Your task to perform on an android device: show emergency info Image 0: 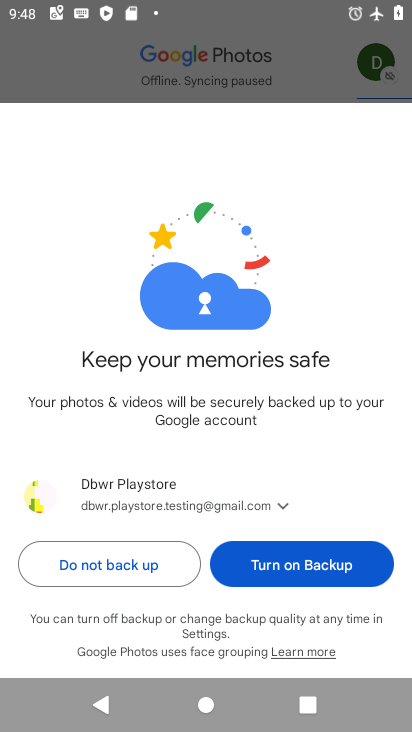
Step 0: press home button
Your task to perform on an android device: show emergency info Image 1: 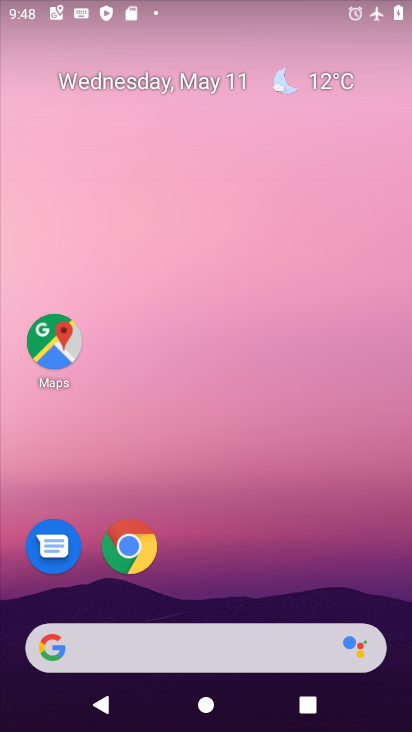
Step 1: drag from (390, 610) to (328, 233)
Your task to perform on an android device: show emergency info Image 2: 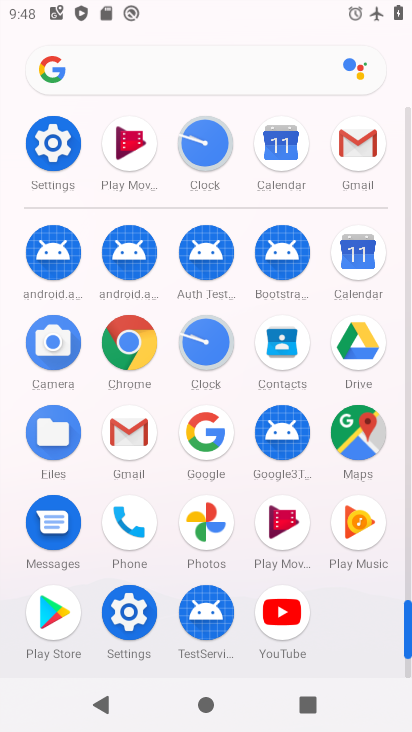
Step 2: click (128, 612)
Your task to perform on an android device: show emergency info Image 3: 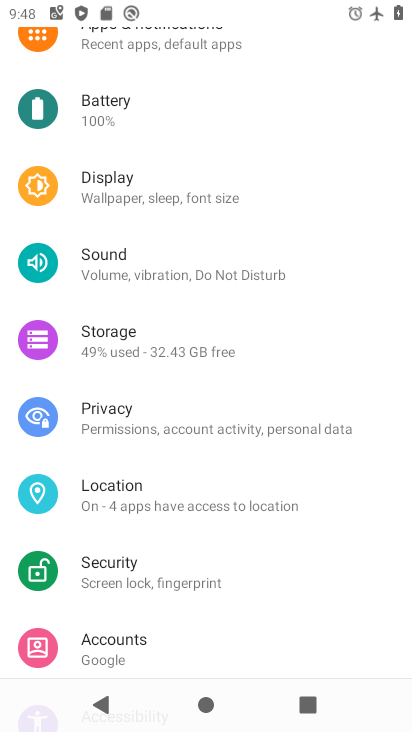
Step 3: drag from (291, 619) to (327, 162)
Your task to perform on an android device: show emergency info Image 4: 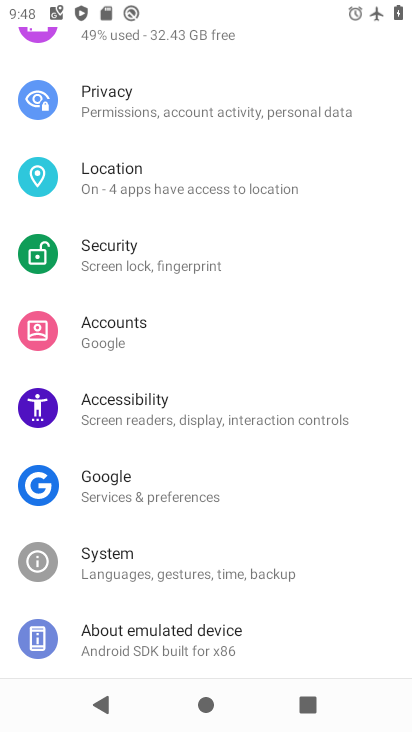
Step 4: click (121, 628)
Your task to perform on an android device: show emergency info Image 5: 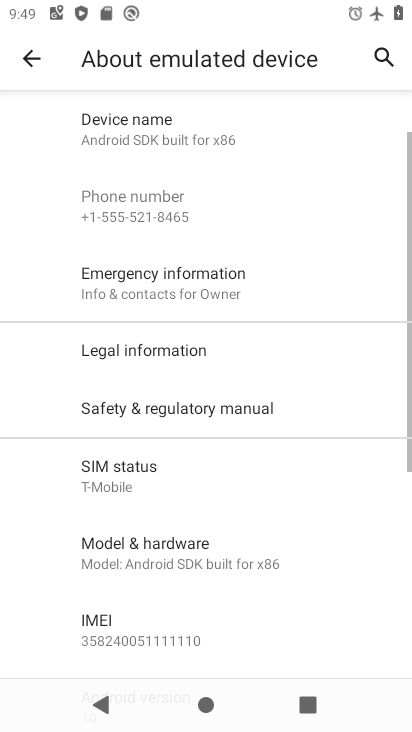
Step 5: click (147, 267)
Your task to perform on an android device: show emergency info Image 6: 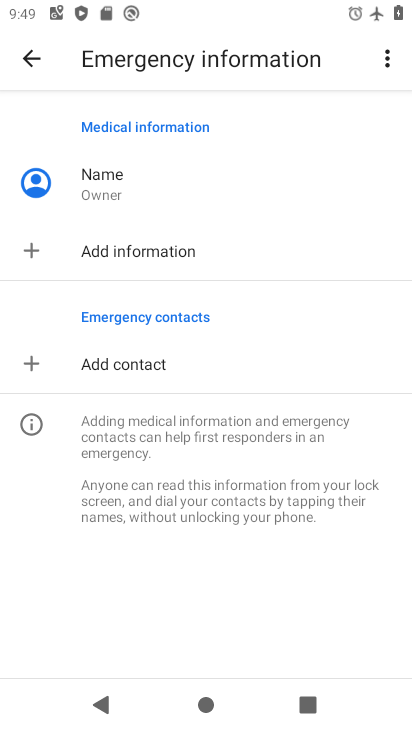
Step 6: task complete